Your task to perform on an android device: What's on my calendar today? Image 0: 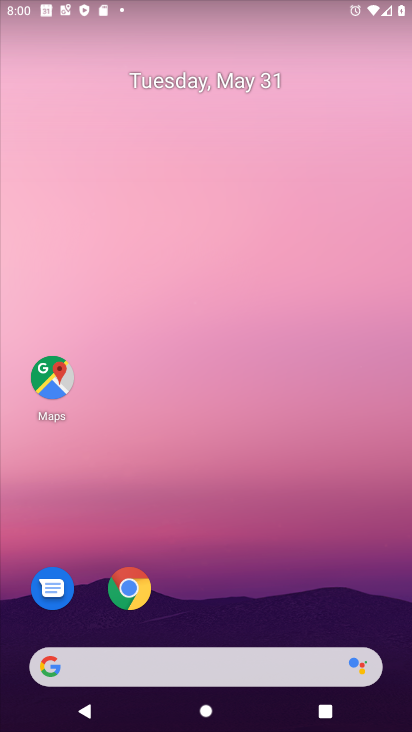
Step 0: drag from (222, 615) to (298, 61)
Your task to perform on an android device: What's on my calendar today? Image 1: 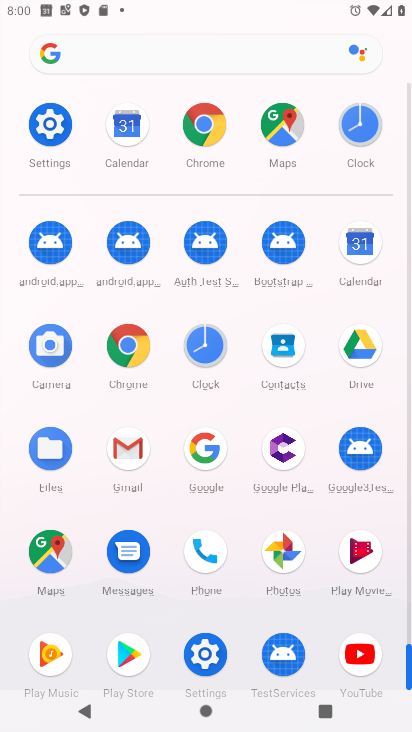
Step 1: click (365, 273)
Your task to perform on an android device: What's on my calendar today? Image 2: 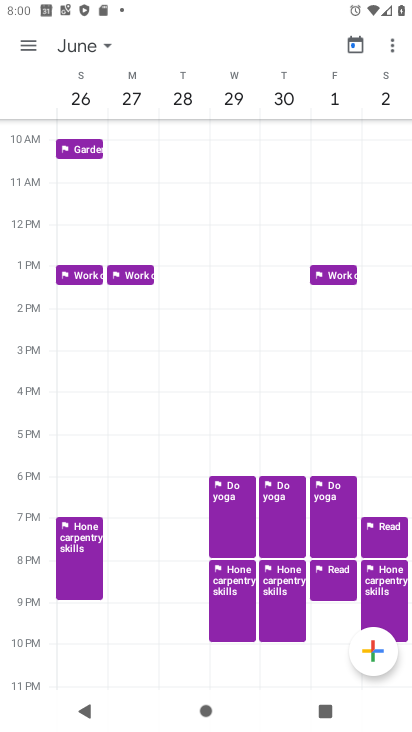
Step 2: drag from (87, 105) to (411, 75)
Your task to perform on an android device: What's on my calendar today? Image 3: 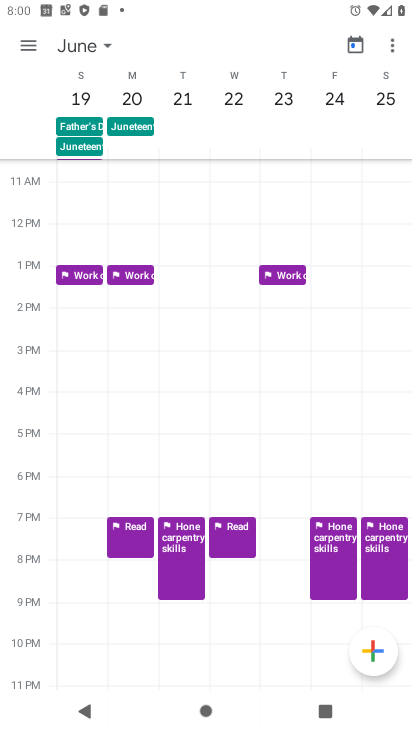
Step 3: drag from (100, 102) to (390, 126)
Your task to perform on an android device: What's on my calendar today? Image 4: 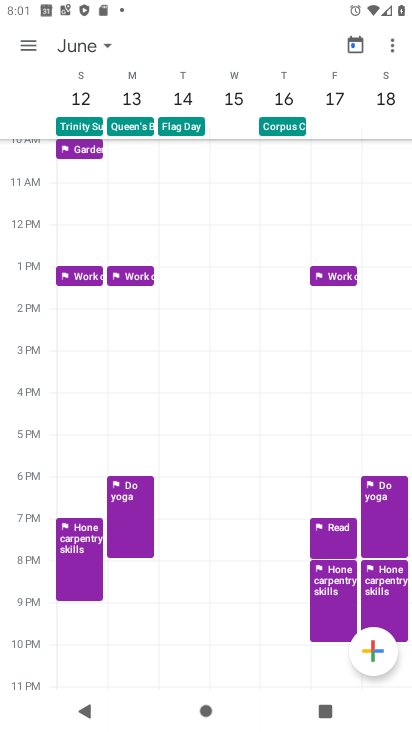
Step 4: drag from (173, 131) to (396, 105)
Your task to perform on an android device: What's on my calendar today? Image 5: 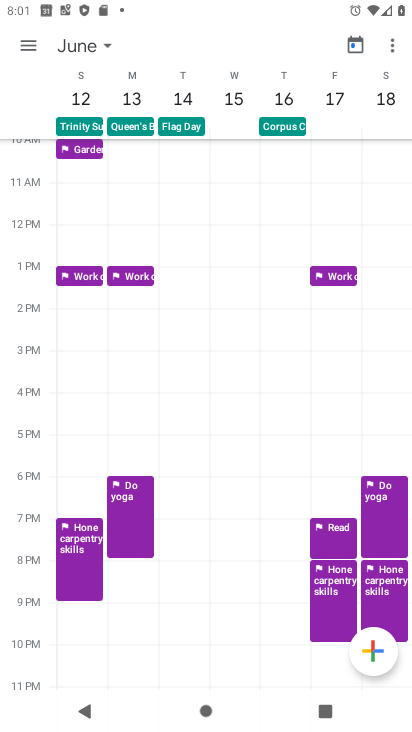
Step 5: drag from (92, 109) to (385, 106)
Your task to perform on an android device: What's on my calendar today? Image 6: 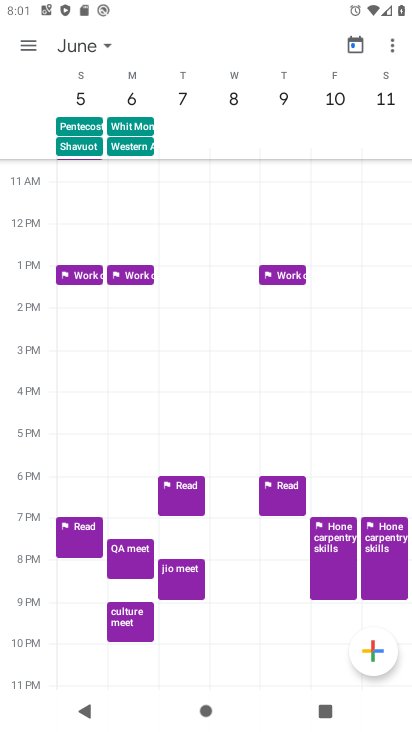
Step 6: drag from (69, 112) to (310, 91)
Your task to perform on an android device: What's on my calendar today? Image 7: 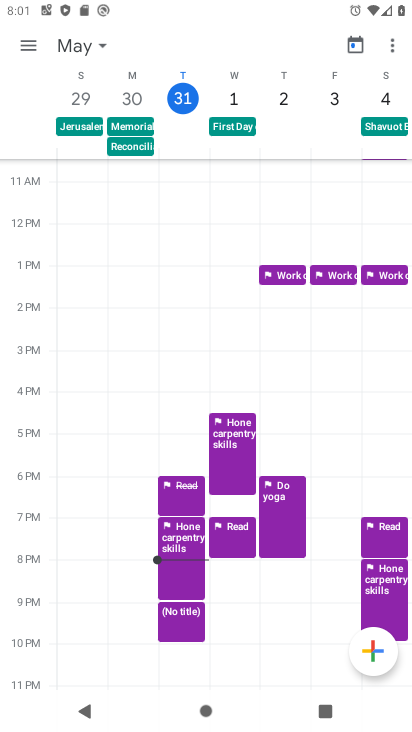
Step 7: click (37, 36)
Your task to perform on an android device: What's on my calendar today? Image 8: 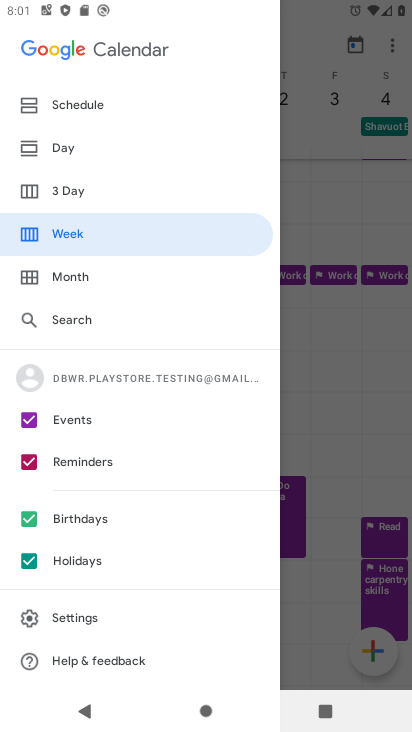
Step 8: click (66, 144)
Your task to perform on an android device: What's on my calendar today? Image 9: 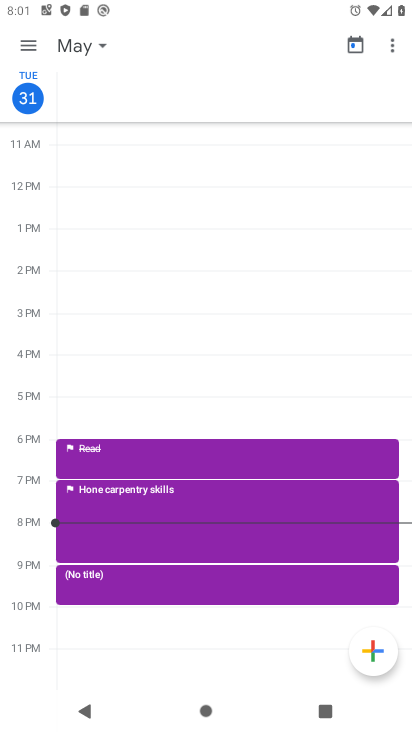
Step 9: task complete